Your task to perform on an android device: turn on translation in the chrome app Image 0: 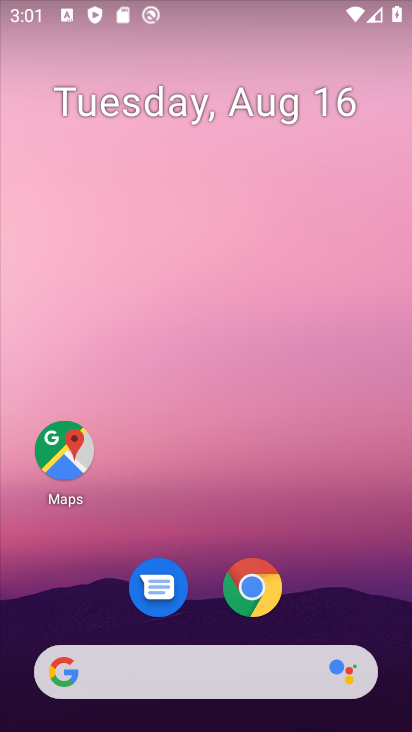
Step 0: click (254, 600)
Your task to perform on an android device: turn on translation in the chrome app Image 1: 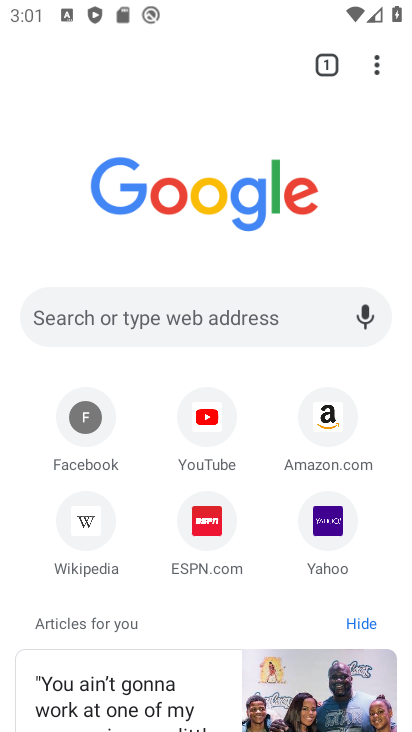
Step 1: drag from (375, 68) to (192, 550)
Your task to perform on an android device: turn on translation in the chrome app Image 2: 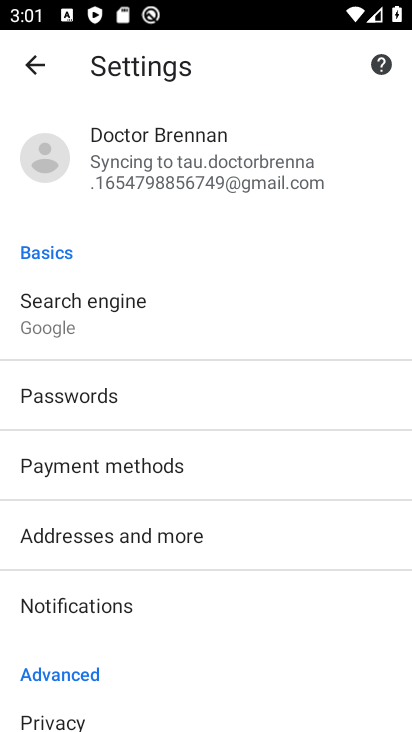
Step 2: drag from (152, 676) to (205, 98)
Your task to perform on an android device: turn on translation in the chrome app Image 3: 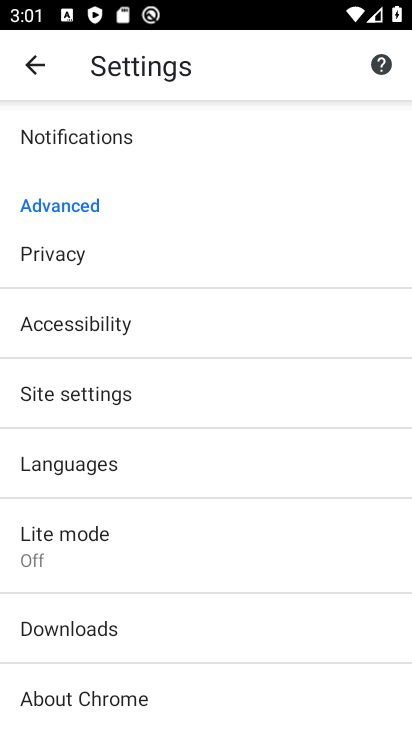
Step 3: click (131, 457)
Your task to perform on an android device: turn on translation in the chrome app Image 4: 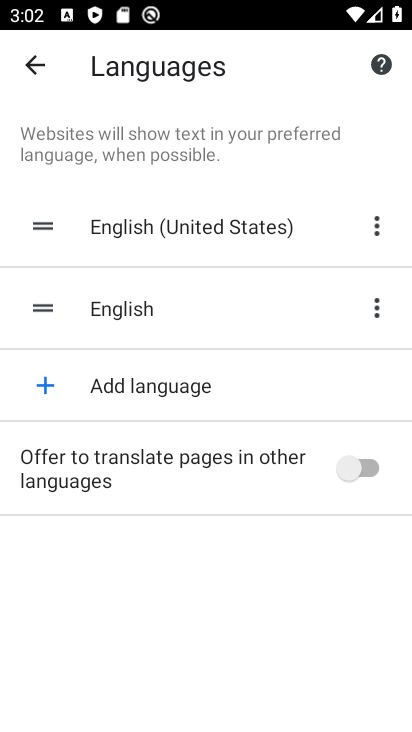
Step 4: click (362, 461)
Your task to perform on an android device: turn on translation in the chrome app Image 5: 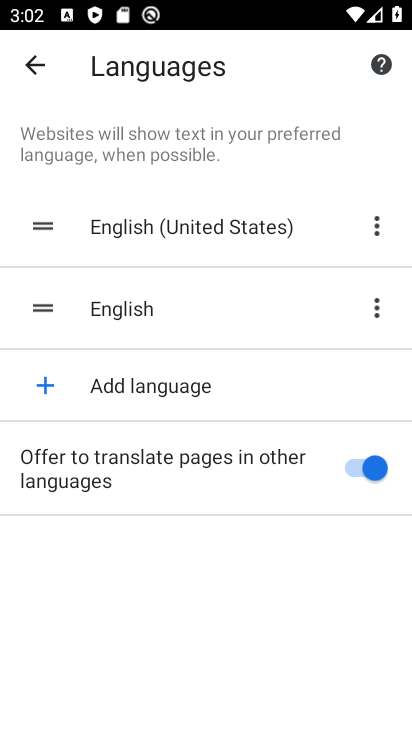
Step 5: task complete